Your task to perform on an android device: toggle show notifications on the lock screen Image 0: 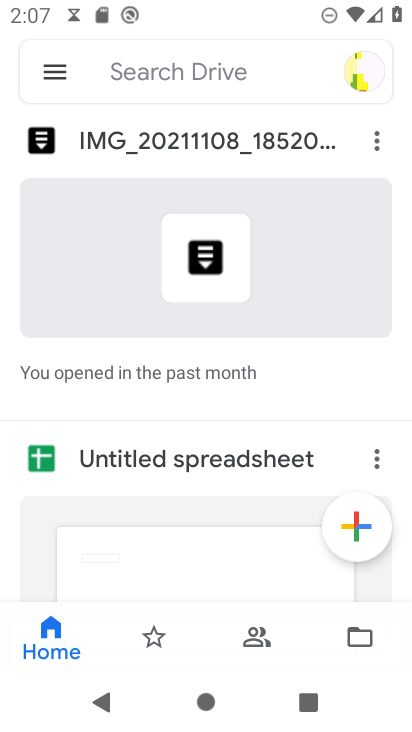
Step 0: press home button
Your task to perform on an android device: toggle show notifications on the lock screen Image 1: 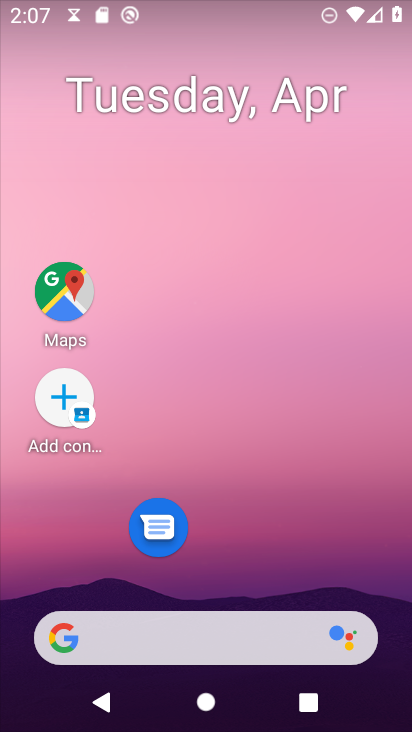
Step 1: drag from (223, 569) to (239, 105)
Your task to perform on an android device: toggle show notifications on the lock screen Image 2: 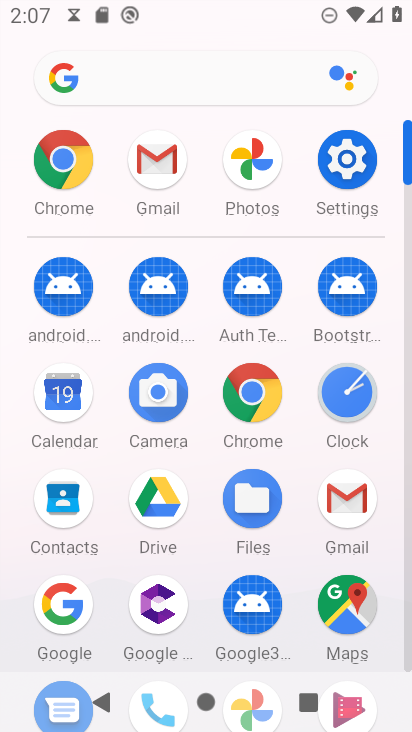
Step 2: click (345, 159)
Your task to perform on an android device: toggle show notifications on the lock screen Image 3: 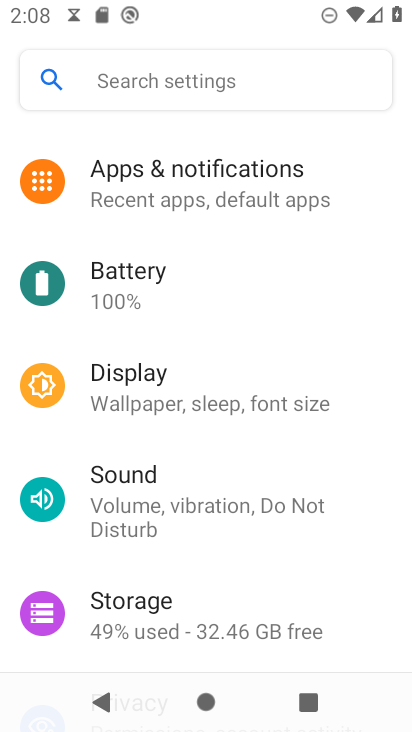
Step 3: click (212, 165)
Your task to perform on an android device: toggle show notifications on the lock screen Image 4: 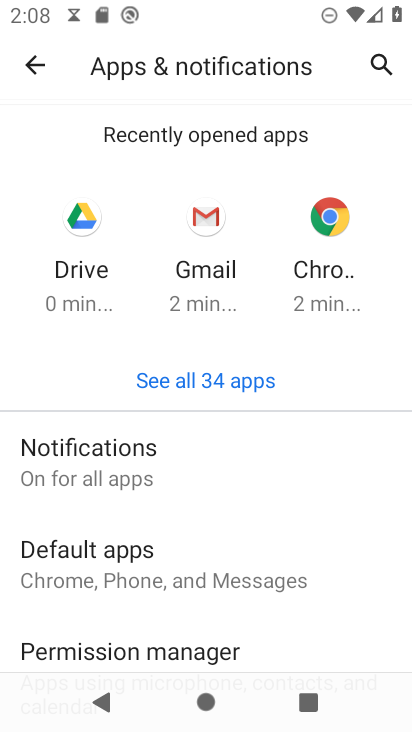
Step 4: click (120, 449)
Your task to perform on an android device: toggle show notifications on the lock screen Image 5: 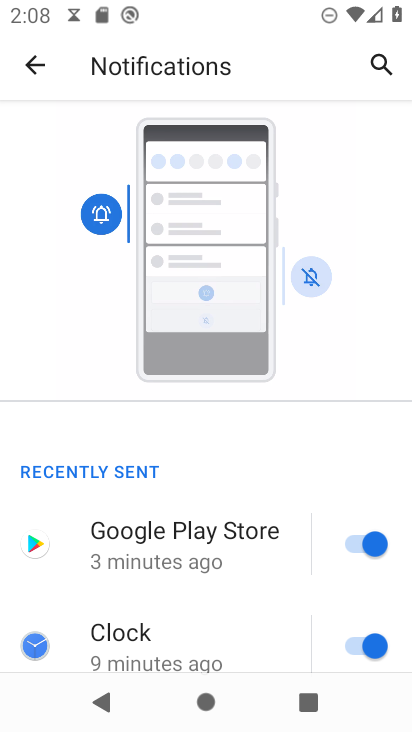
Step 5: drag from (224, 603) to (224, 418)
Your task to perform on an android device: toggle show notifications on the lock screen Image 6: 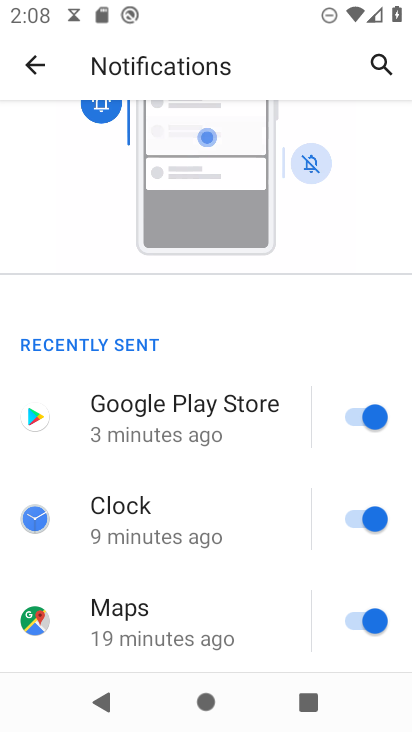
Step 6: drag from (173, 589) to (156, 421)
Your task to perform on an android device: toggle show notifications on the lock screen Image 7: 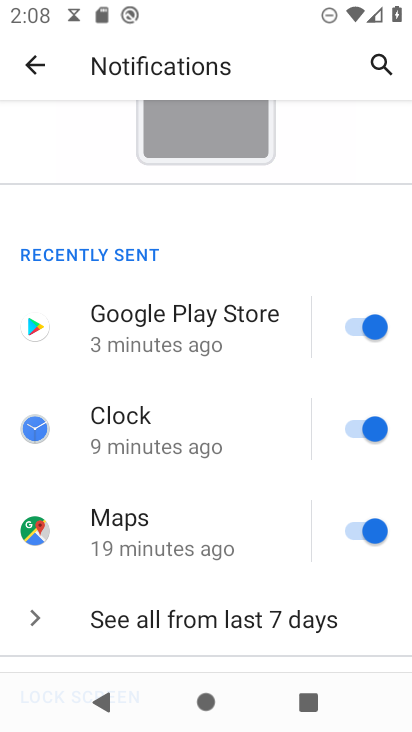
Step 7: drag from (158, 591) to (155, 399)
Your task to perform on an android device: toggle show notifications on the lock screen Image 8: 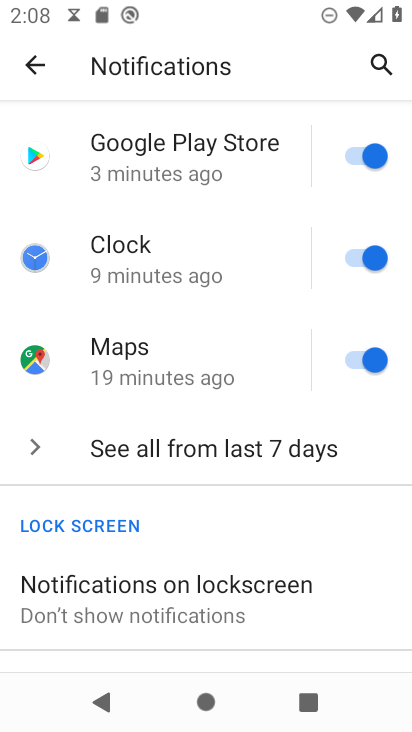
Step 8: click (148, 582)
Your task to perform on an android device: toggle show notifications on the lock screen Image 9: 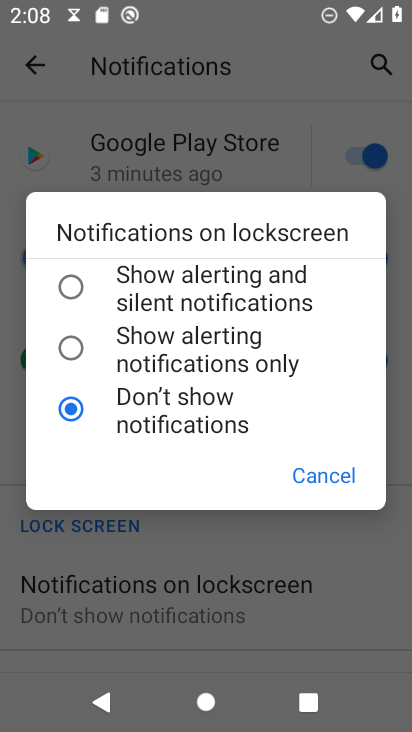
Step 9: click (74, 281)
Your task to perform on an android device: toggle show notifications on the lock screen Image 10: 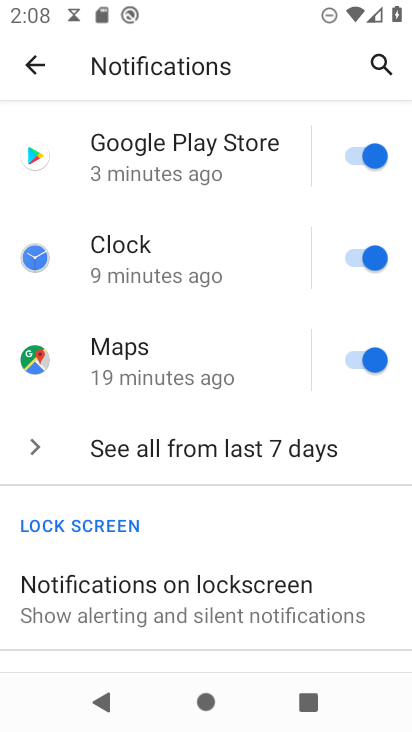
Step 10: task complete